Your task to perform on an android device: Find coffee shops on Maps Image 0: 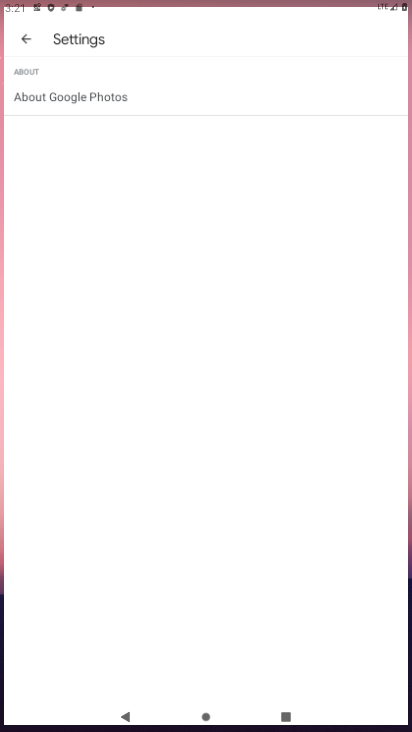
Step 0: drag from (234, 645) to (291, 7)
Your task to perform on an android device: Find coffee shops on Maps Image 1: 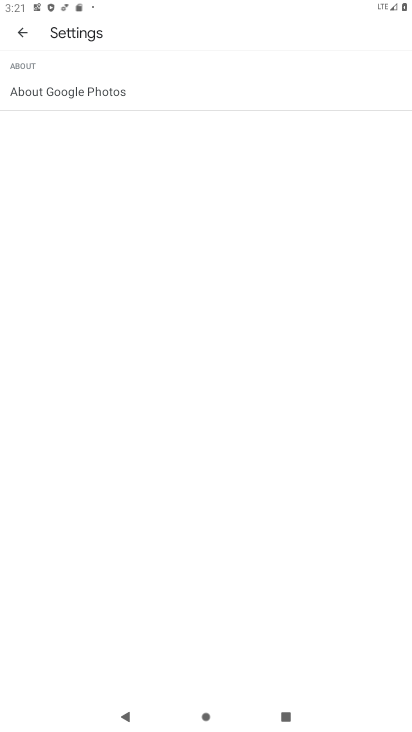
Step 1: press home button
Your task to perform on an android device: Find coffee shops on Maps Image 2: 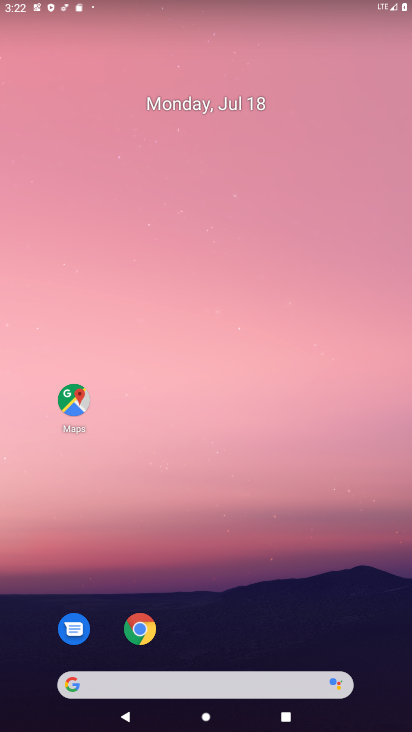
Step 2: click (78, 415)
Your task to perform on an android device: Find coffee shops on Maps Image 3: 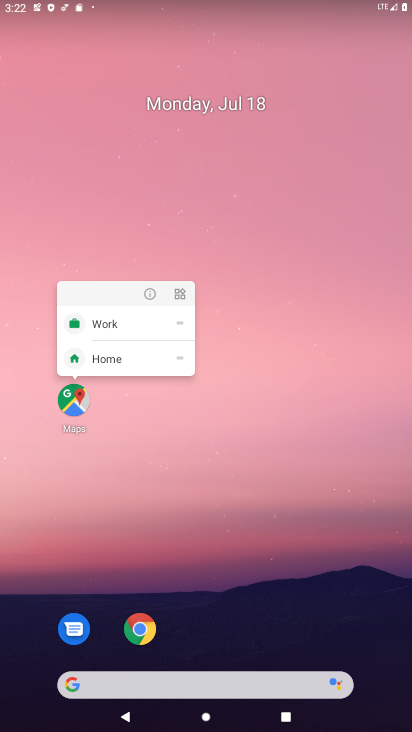
Step 3: click (78, 416)
Your task to perform on an android device: Find coffee shops on Maps Image 4: 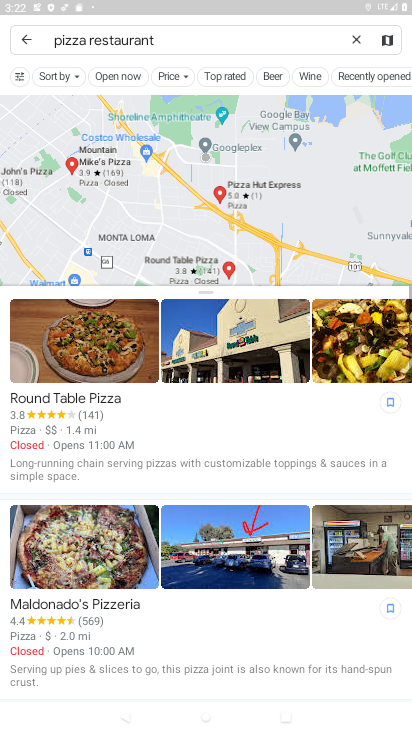
Step 4: click (359, 40)
Your task to perform on an android device: Find coffee shops on Maps Image 5: 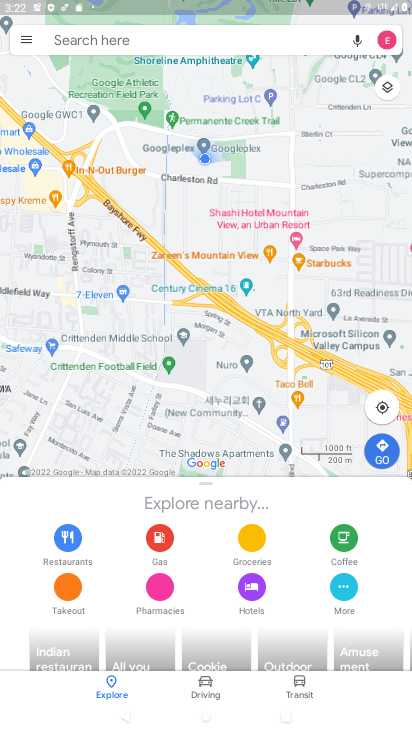
Step 5: click (200, 41)
Your task to perform on an android device: Find coffee shops on Maps Image 6: 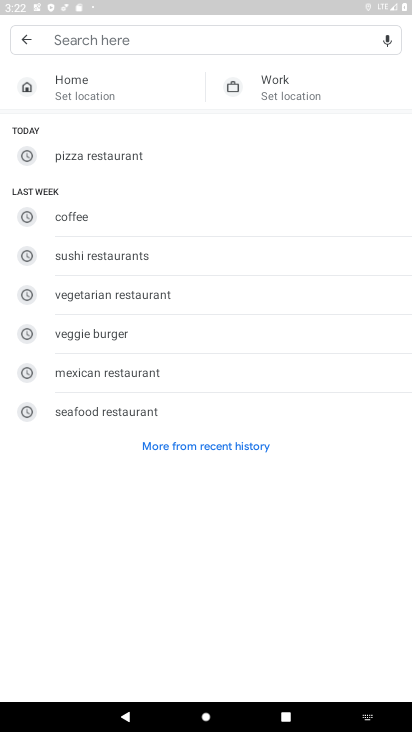
Step 6: type "coffee shops"
Your task to perform on an android device: Find coffee shops on Maps Image 7: 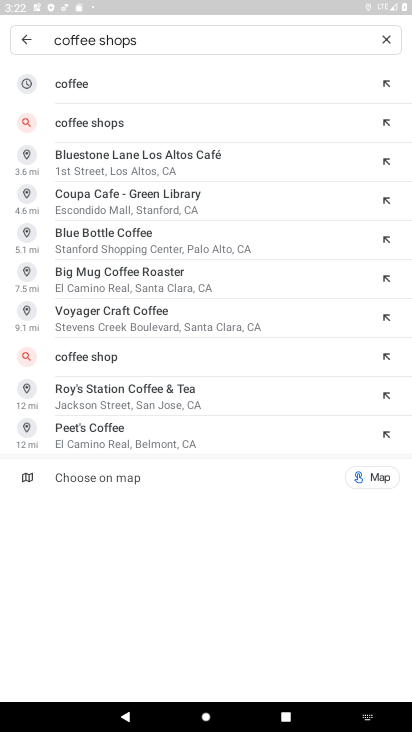
Step 7: click (121, 124)
Your task to perform on an android device: Find coffee shops on Maps Image 8: 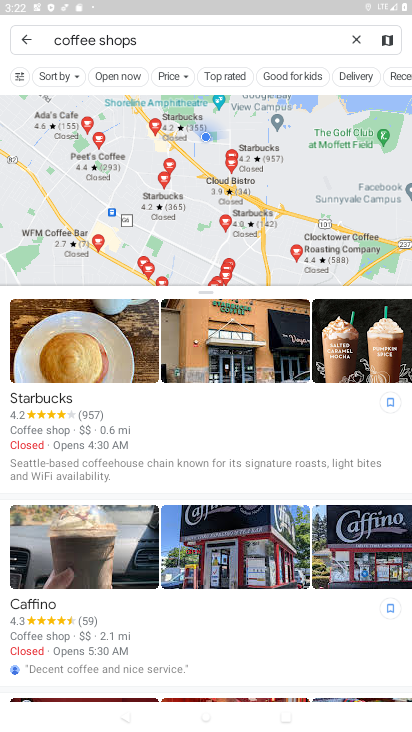
Step 8: task complete